Your task to perform on an android device: uninstall "Spotify" Image 0: 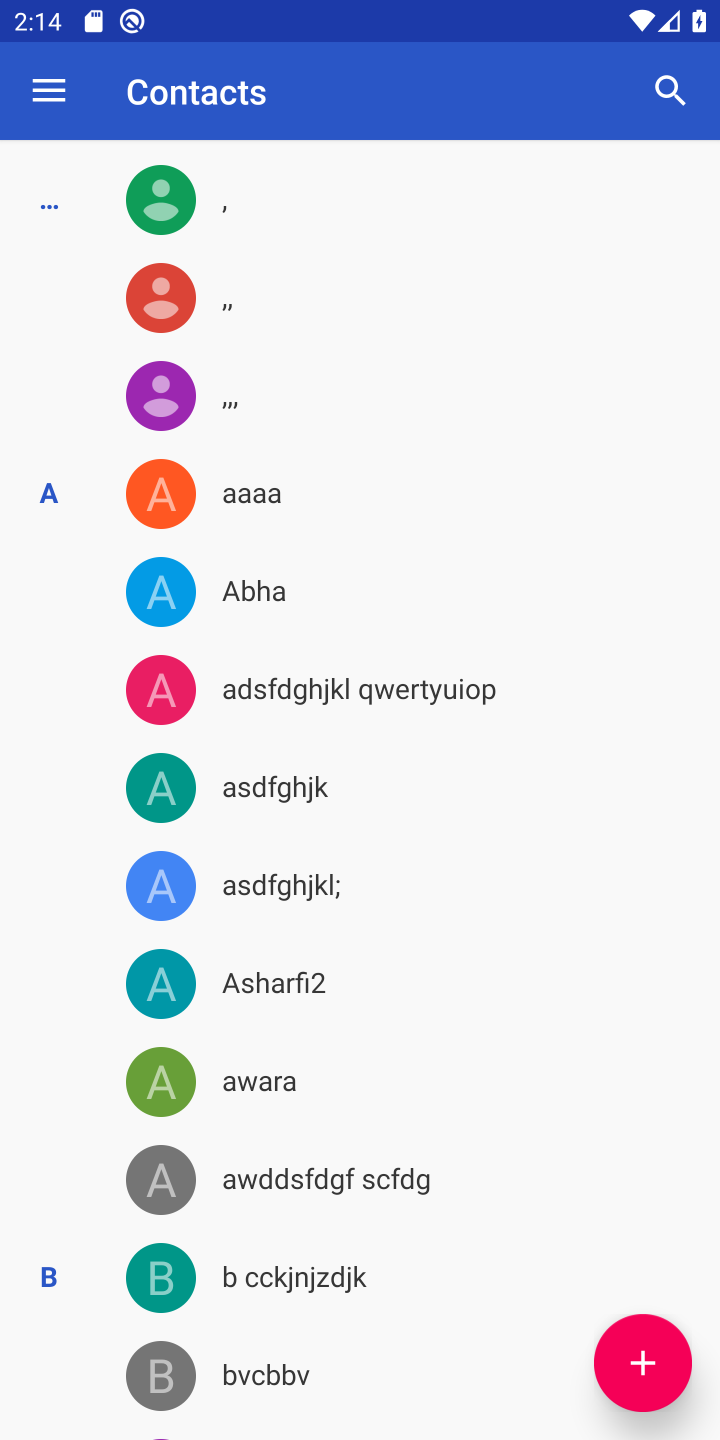
Step 0: press home button
Your task to perform on an android device: uninstall "Spotify" Image 1: 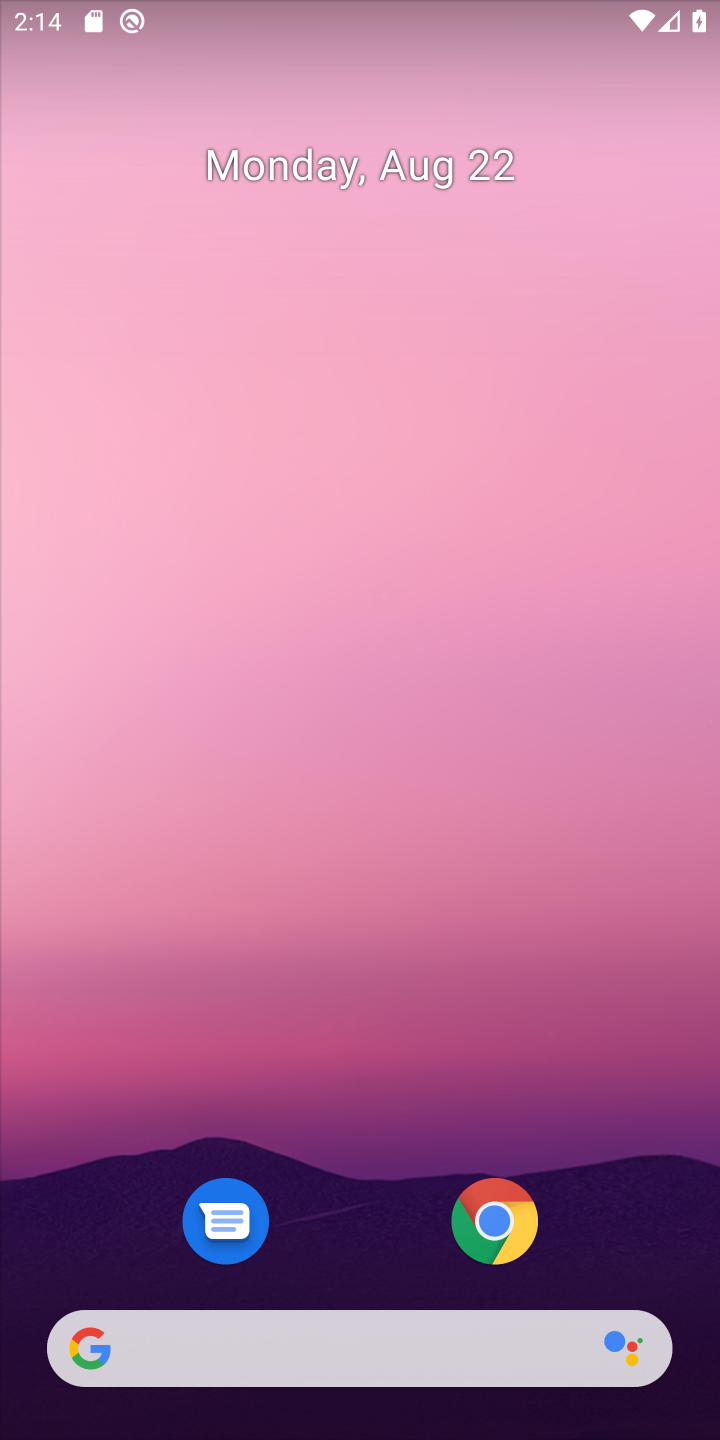
Step 1: drag from (363, 1249) to (371, 110)
Your task to perform on an android device: uninstall "Spotify" Image 2: 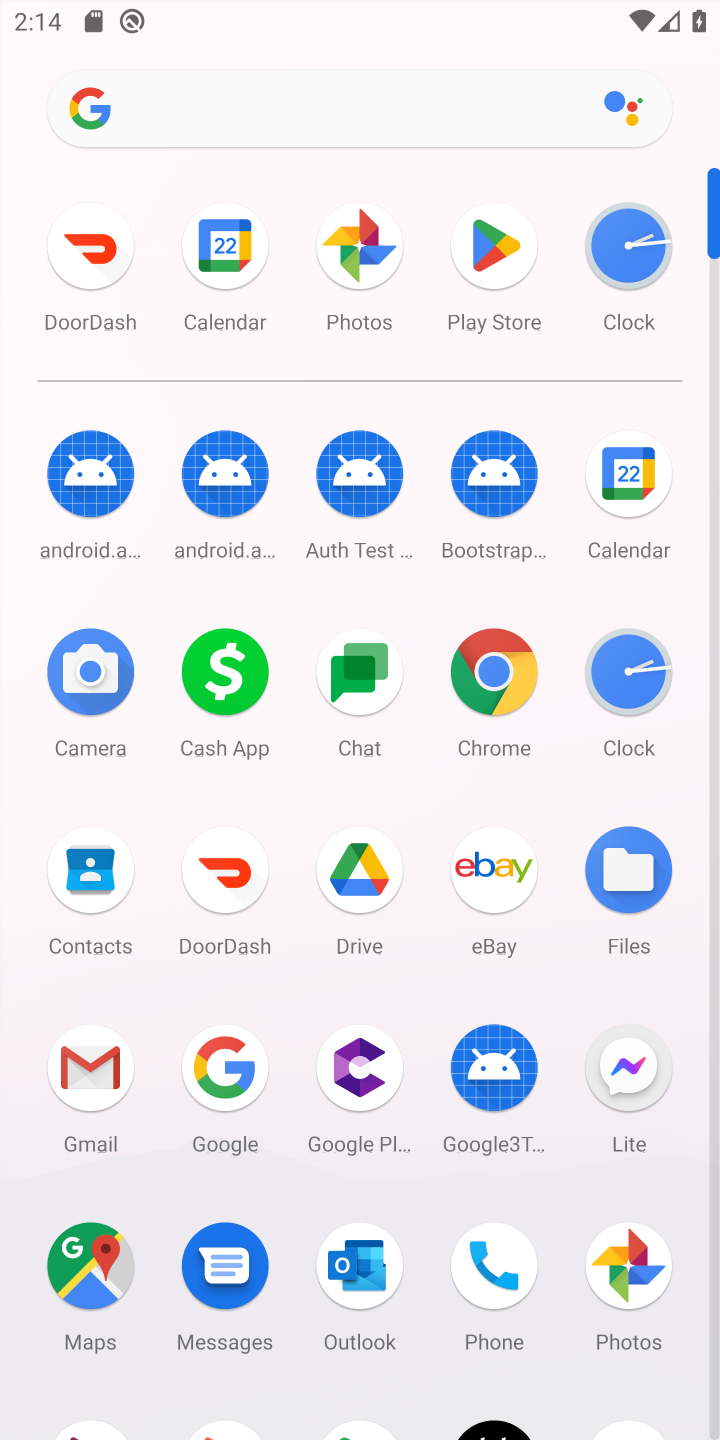
Step 2: click (491, 247)
Your task to perform on an android device: uninstall "Spotify" Image 3: 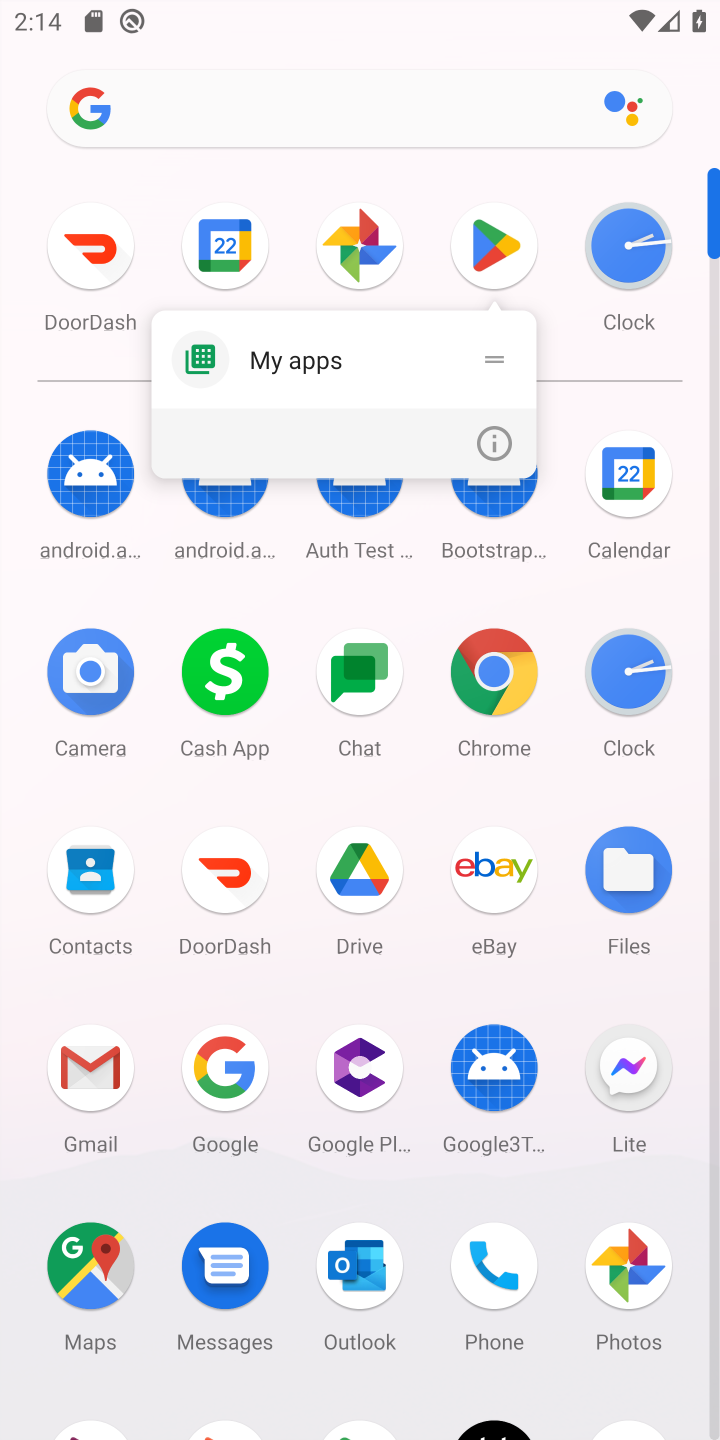
Step 3: click (498, 232)
Your task to perform on an android device: uninstall "Spotify" Image 4: 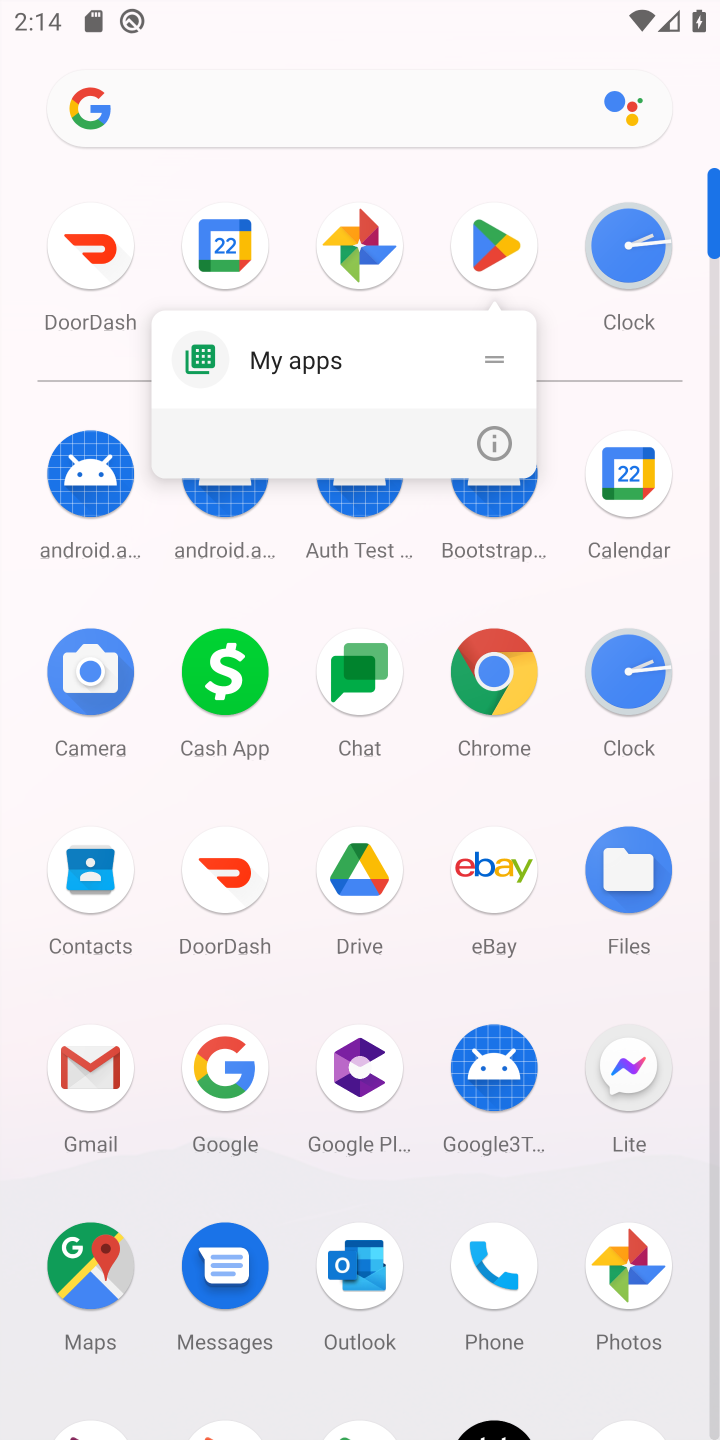
Step 4: click (493, 236)
Your task to perform on an android device: uninstall "Spotify" Image 5: 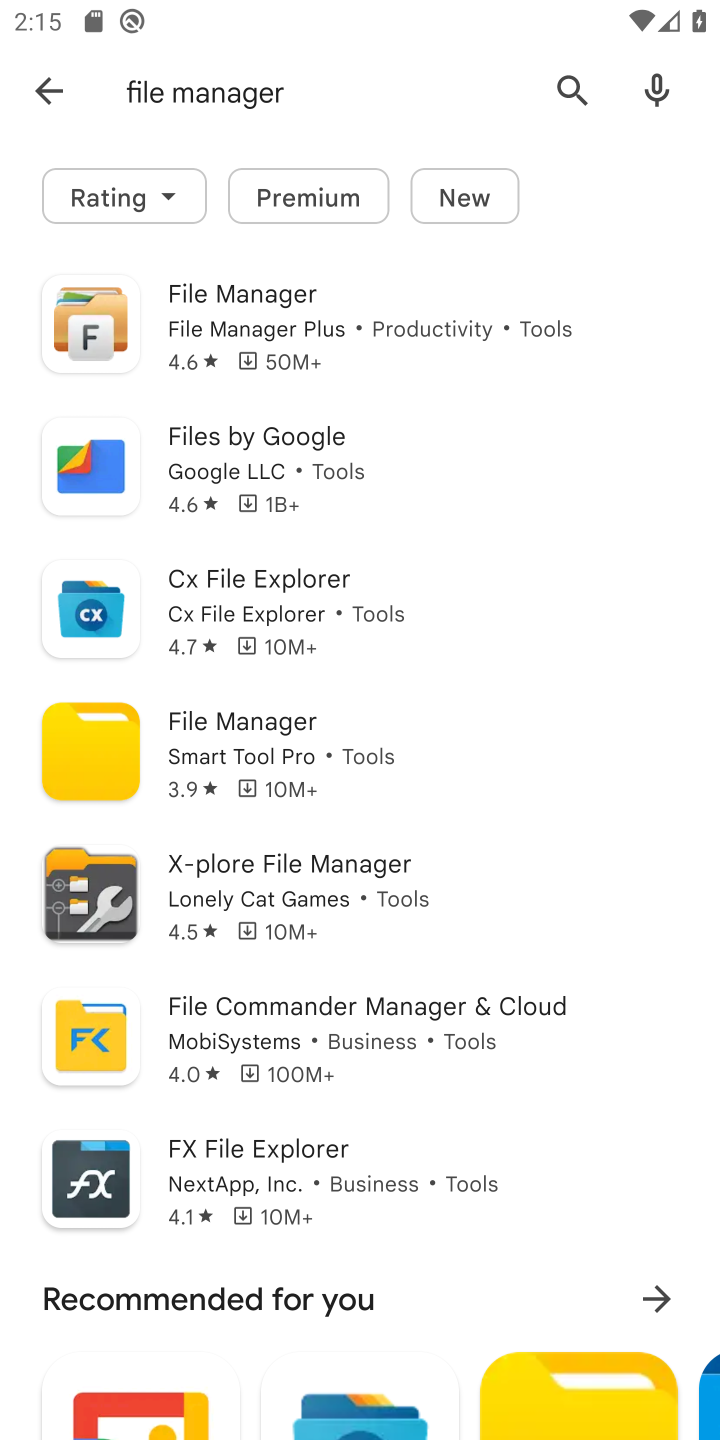
Step 5: click (559, 103)
Your task to perform on an android device: uninstall "Spotify" Image 6: 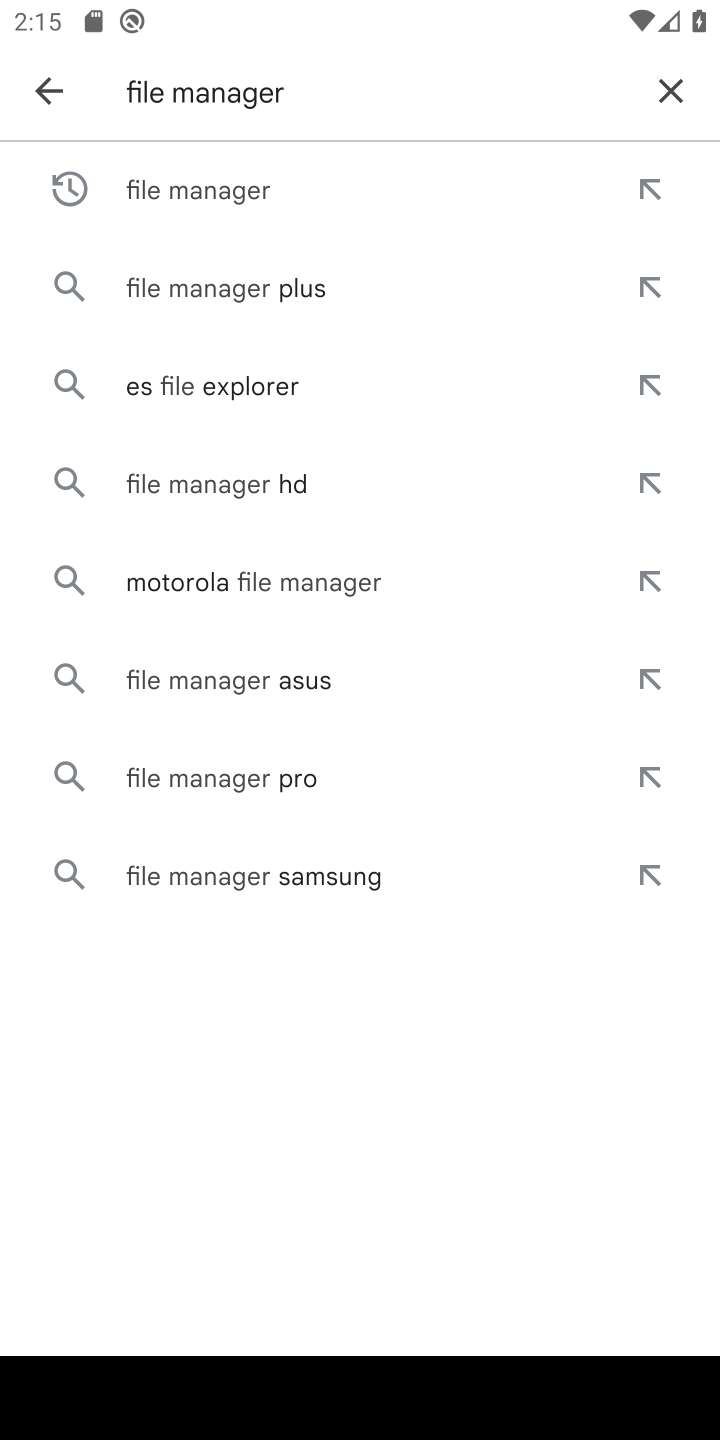
Step 6: click (668, 78)
Your task to perform on an android device: uninstall "Spotify" Image 7: 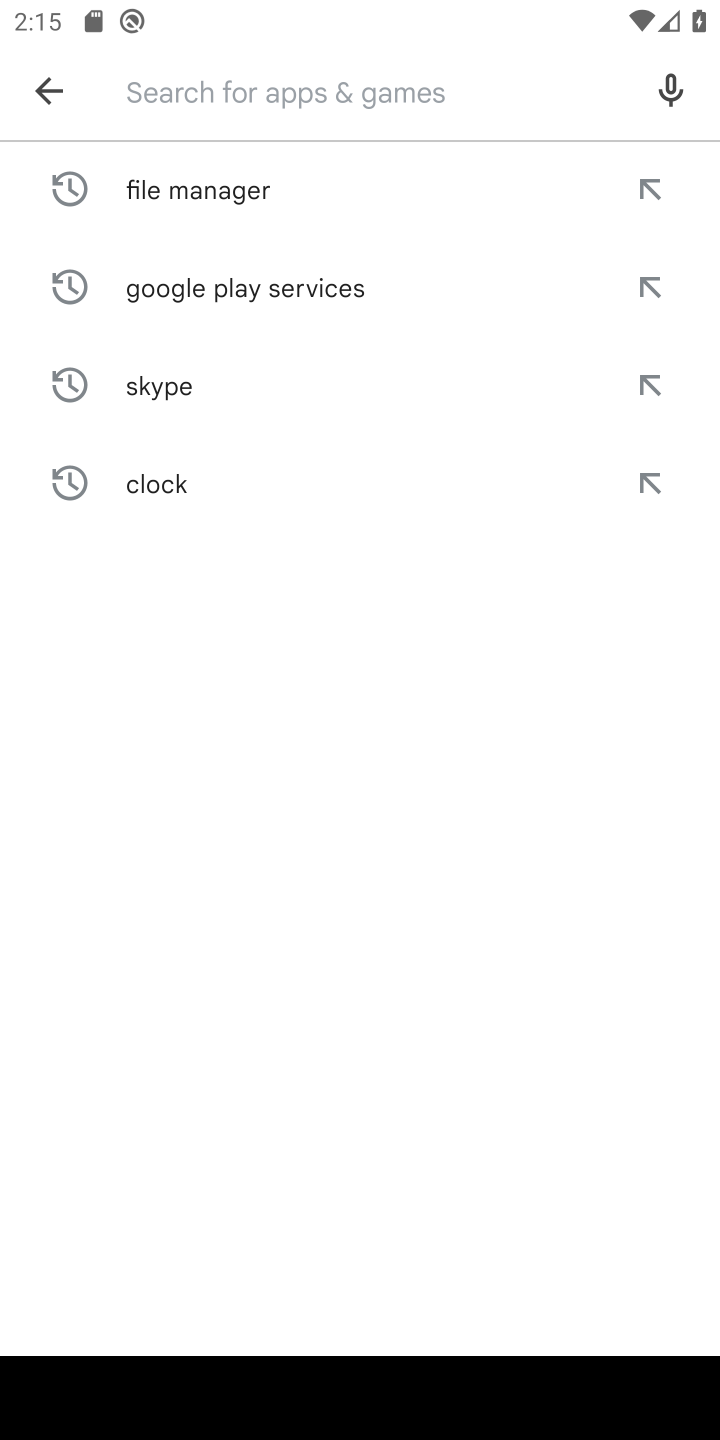
Step 7: type "Spotify"
Your task to perform on an android device: uninstall "Spotify" Image 8: 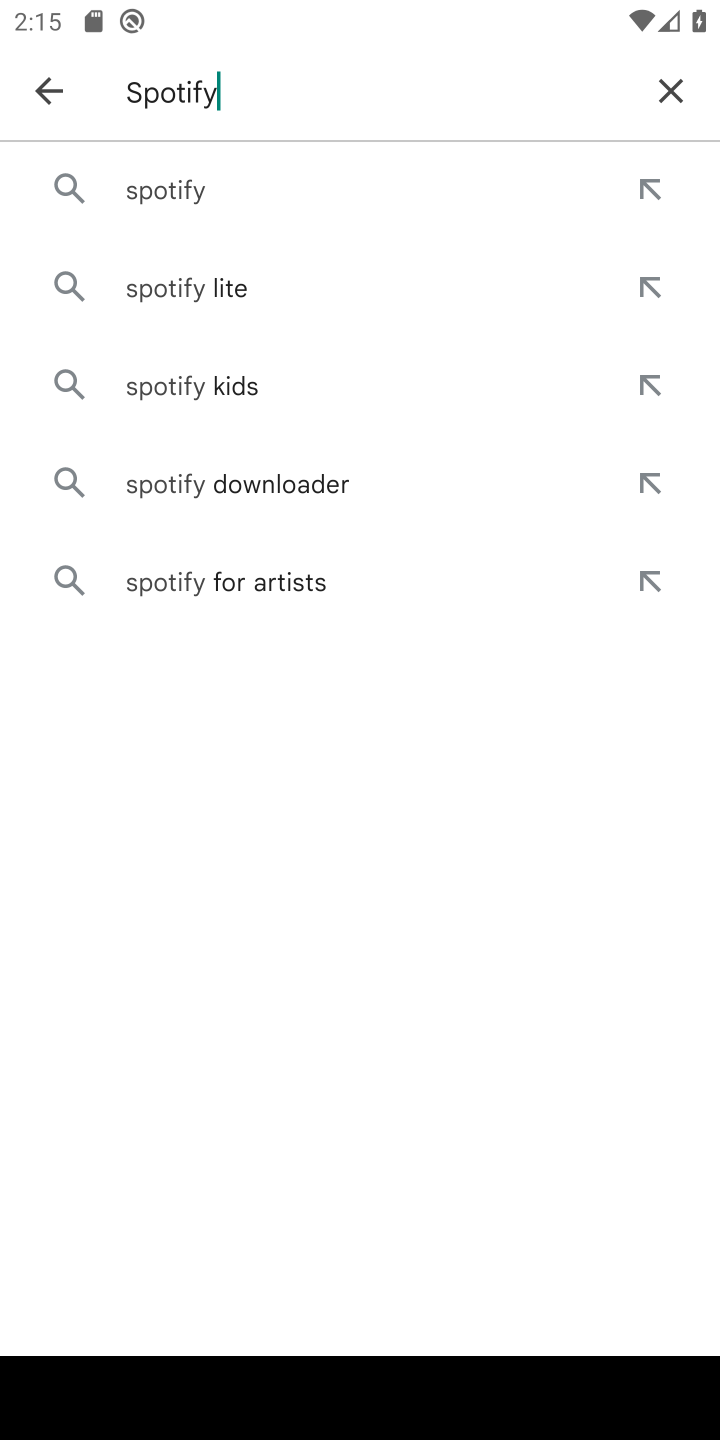
Step 8: click (201, 183)
Your task to perform on an android device: uninstall "Spotify" Image 9: 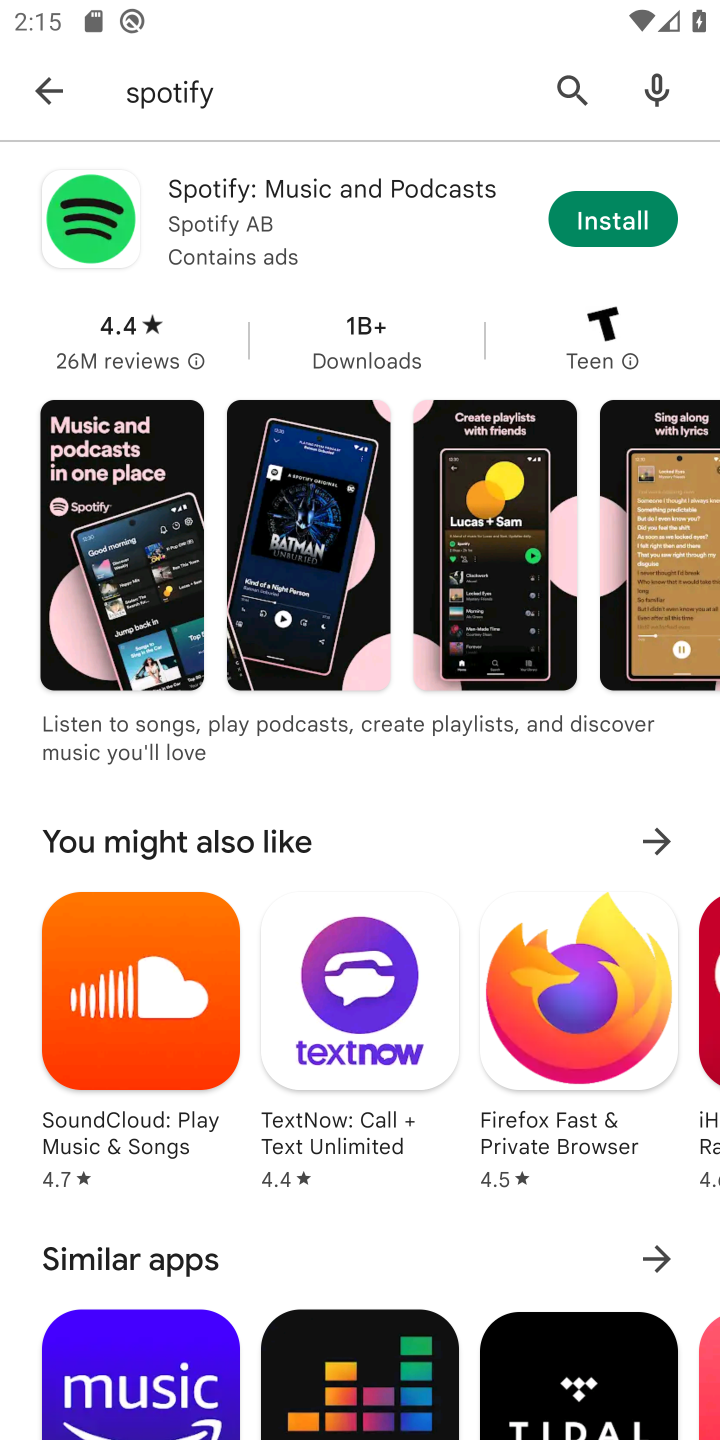
Step 9: task complete